Your task to perform on an android device: When is my next meeting? Image 0: 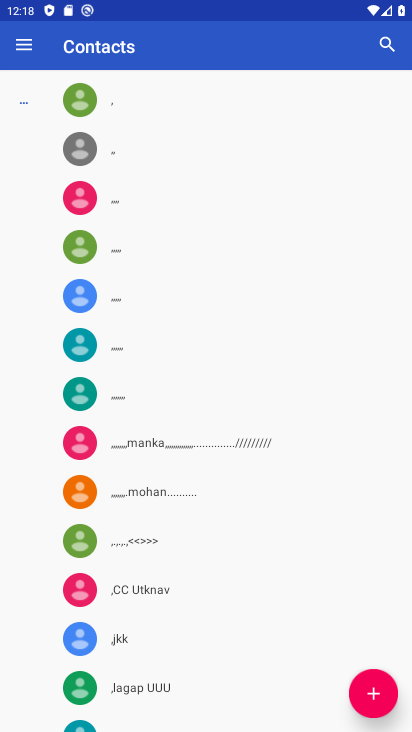
Step 0: press home button
Your task to perform on an android device: When is my next meeting? Image 1: 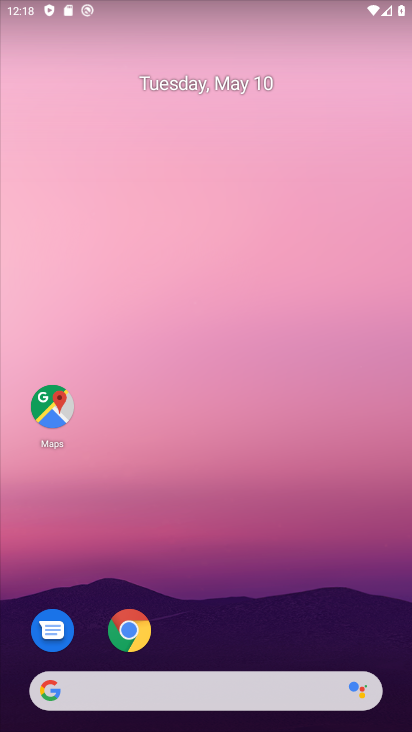
Step 1: drag from (202, 724) to (202, 301)
Your task to perform on an android device: When is my next meeting? Image 2: 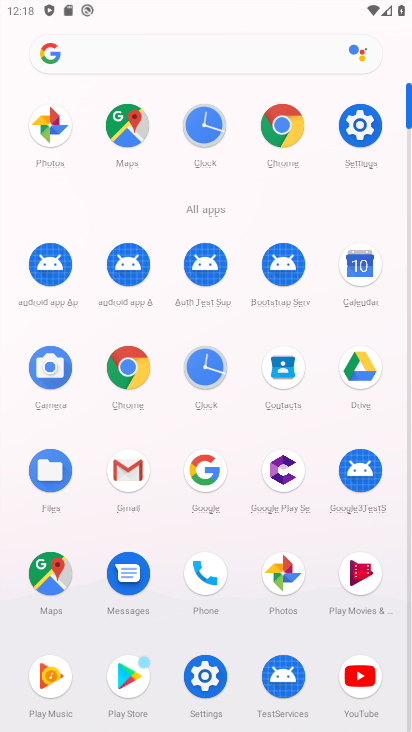
Step 2: click (357, 266)
Your task to perform on an android device: When is my next meeting? Image 3: 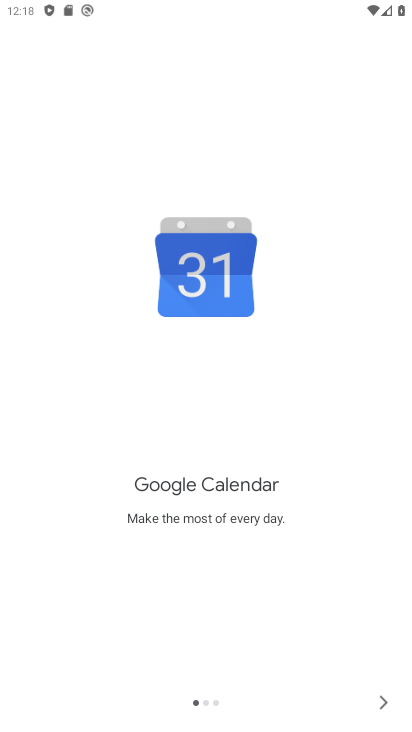
Step 3: click (382, 702)
Your task to perform on an android device: When is my next meeting? Image 4: 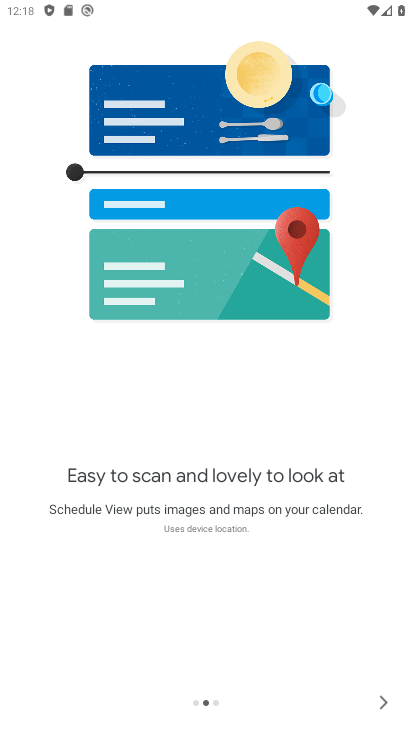
Step 4: click (382, 697)
Your task to perform on an android device: When is my next meeting? Image 5: 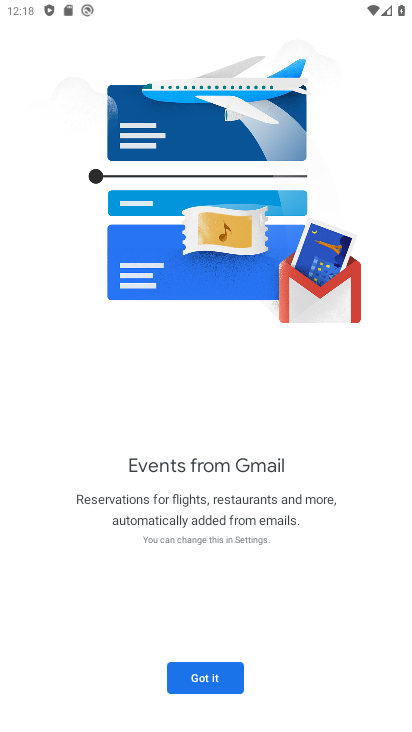
Step 5: click (205, 679)
Your task to perform on an android device: When is my next meeting? Image 6: 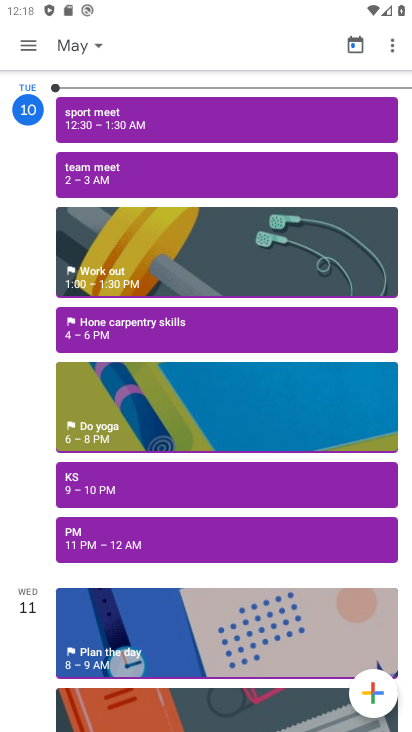
Step 6: click (85, 44)
Your task to perform on an android device: When is my next meeting? Image 7: 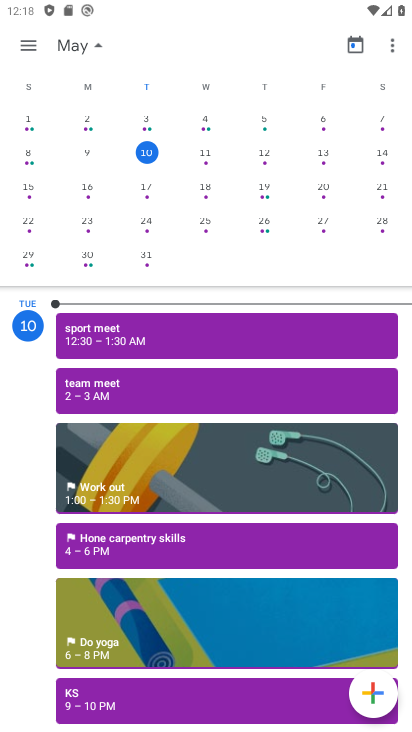
Step 7: click (206, 152)
Your task to perform on an android device: When is my next meeting? Image 8: 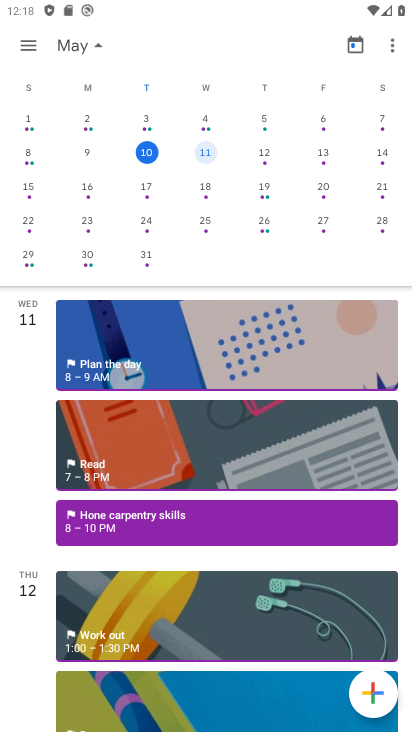
Step 8: task complete